Your task to perform on an android device: Go to sound settings Image 0: 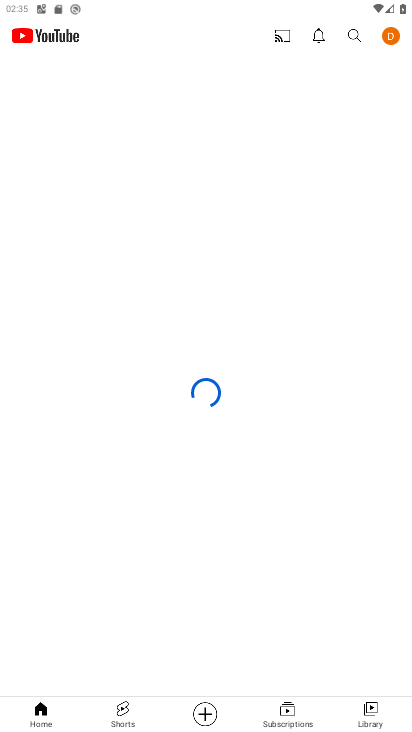
Step 0: press home button
Your task to perform on an android device: Go to sound settings Image 1: 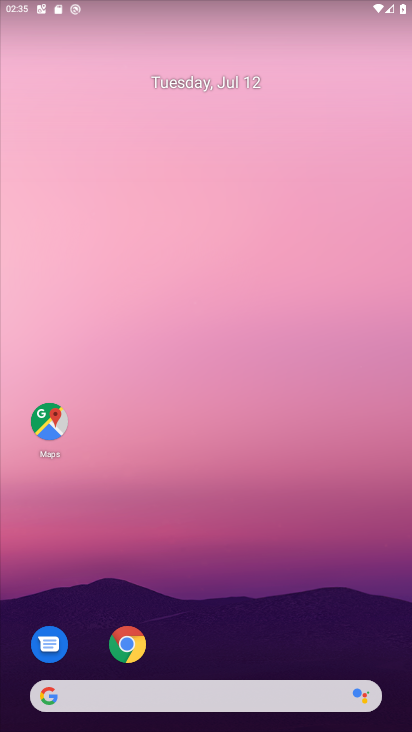
Step 1: drag from (209, 653) to (233, 118)
Your task to perform on an android device: Go to sound settings Image 2: 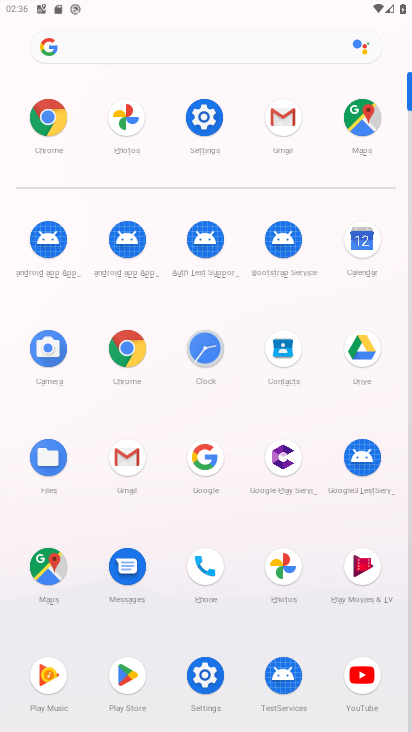
Step 2: click (203, 102)
Your task to perform on an android device: Go to sound settings Image 3: 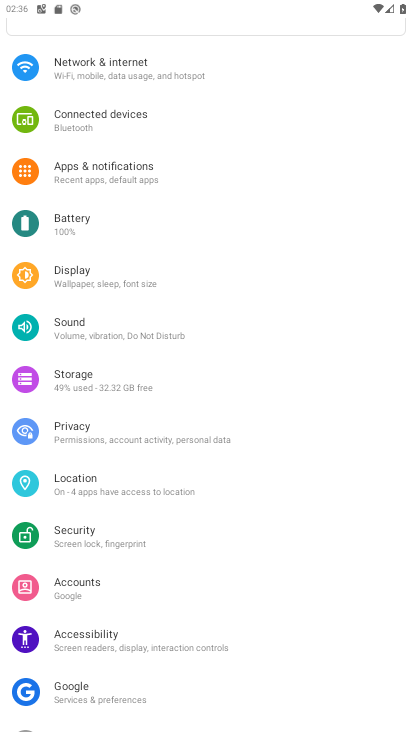
Step 3: click (98, 330)
Your task to perform on an android device: Go to sound settings Image 4: 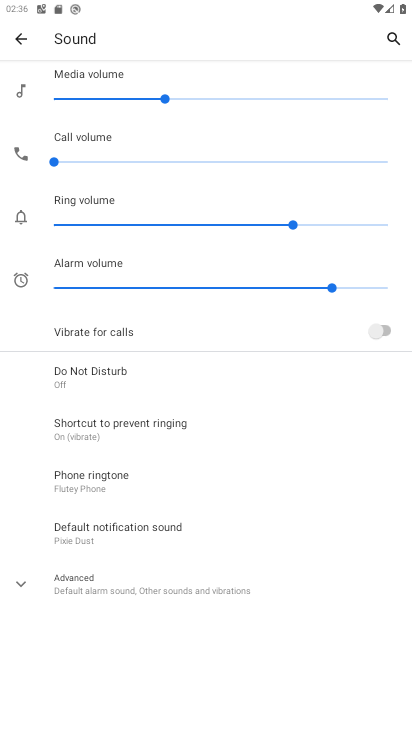
Step 4: click (96, 580)
Your task to perform on an android device: Go to sound settings Image 5: 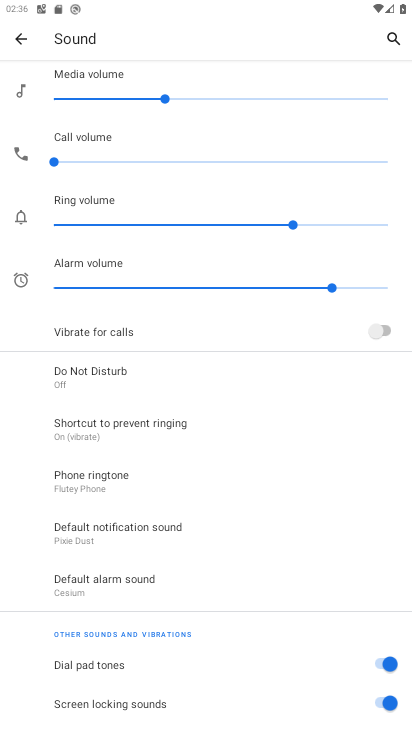
Step 5: task complete